Your task to perform on an android device: How do I get to the nearest Burger King? Image 0: 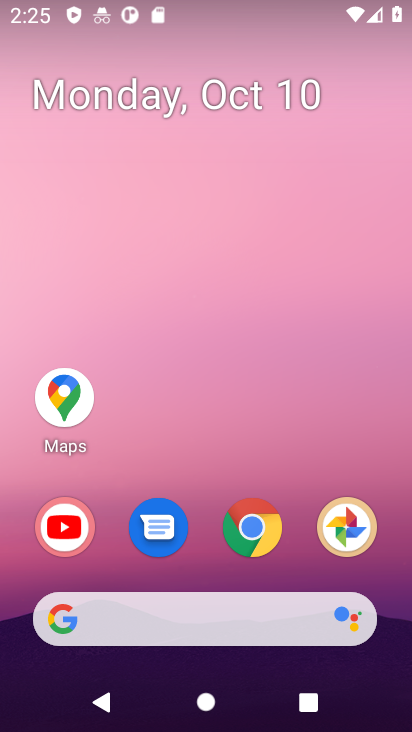
Step 0: click (60, 394)
Your task to perform on an android device: How do I get to the nearest Burger King? Image 1: 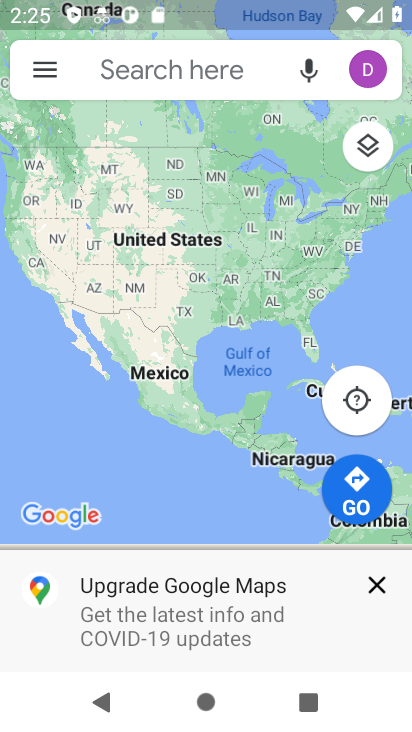
Step 1: click (152, 72)
Your task to perform on an android device: How do I get to the nearest Burger King? Image 2: 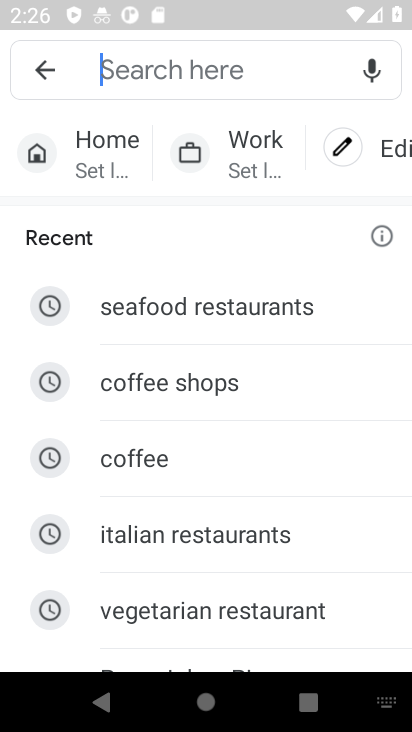
Step 2: type "nearest Burger King"
Your task to perform on an android device: How do I get to the nearest Burger King? Image 3: 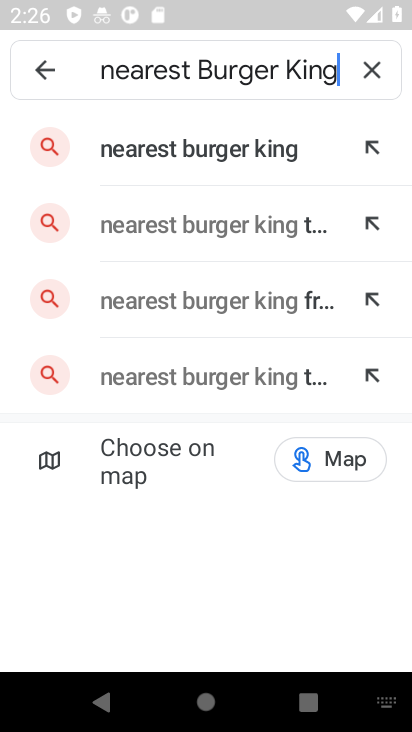
Step 3: click (141, 150)
Your task to perform on an android device: How do I get to the nearest Burger King? Image 4: 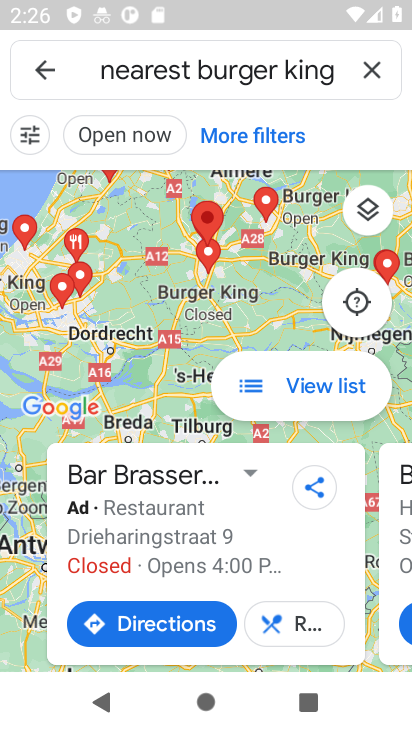
Step 4: task complete